Your task to perform on an android device: set an alarm Image 0: 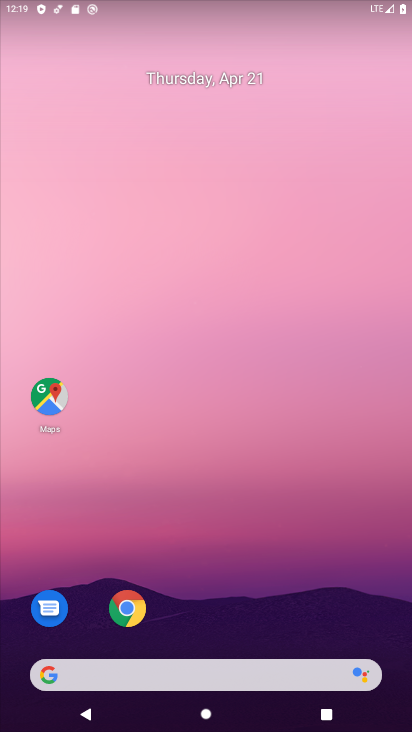
Step 0: drag from (223, 639) to (223, 199)
Your task to perform on an android device: set an alarm Image 1: 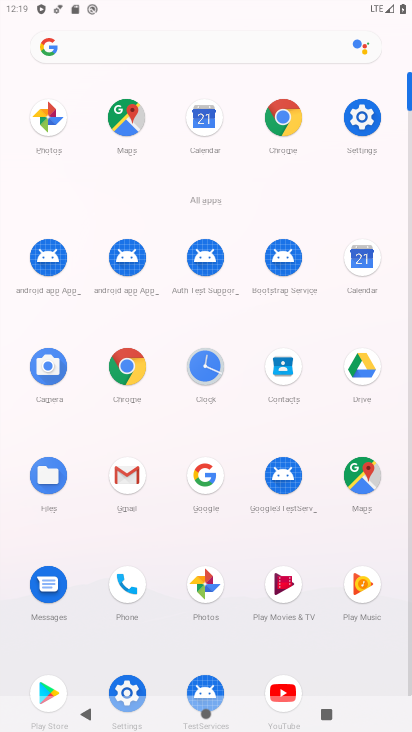
Step 1: click (210, 378)
Your task to perform on an android device: set an alarm Image 2: 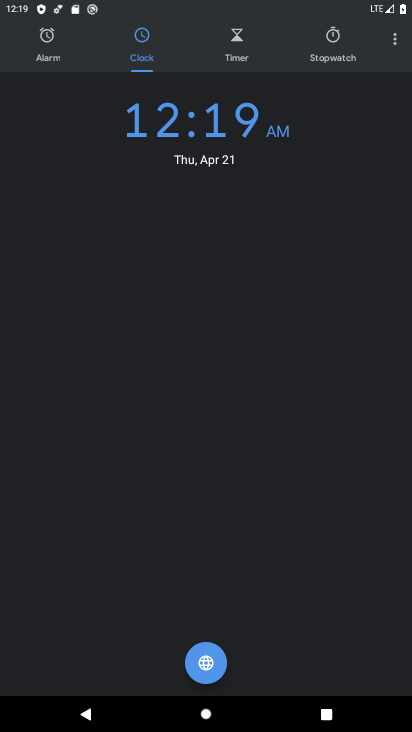
Step 2: click (55, 39)
Your task to perform on an android device: set an alarm Image 3: 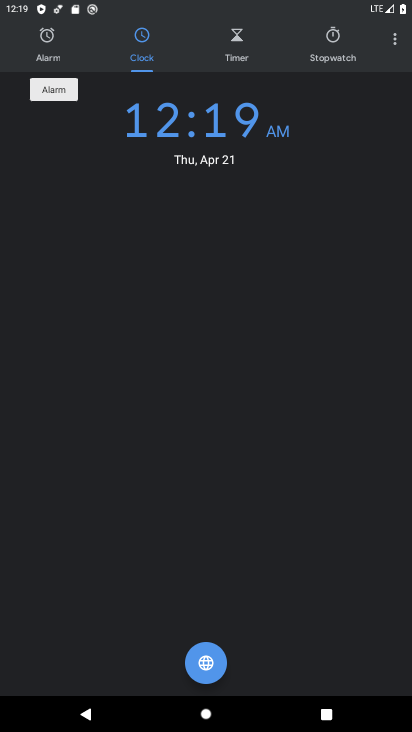
Step 3: click (52, 33)
Your task to perform on an android device: set an alarm Image 4: 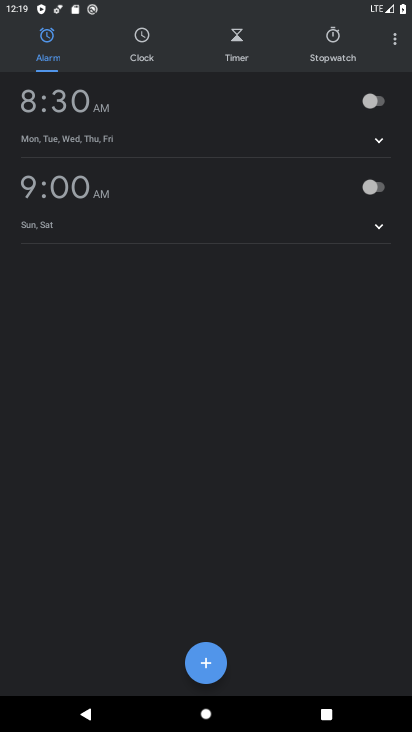
Step 4: click (381, 104)
Your task to perform on an android device: set an alarm Image 5: 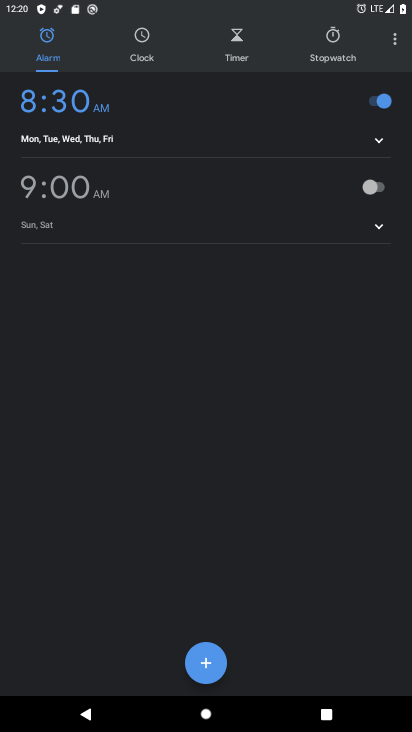
Step 5: task complete